Your task to perform on an android device: check data usage Image 0: 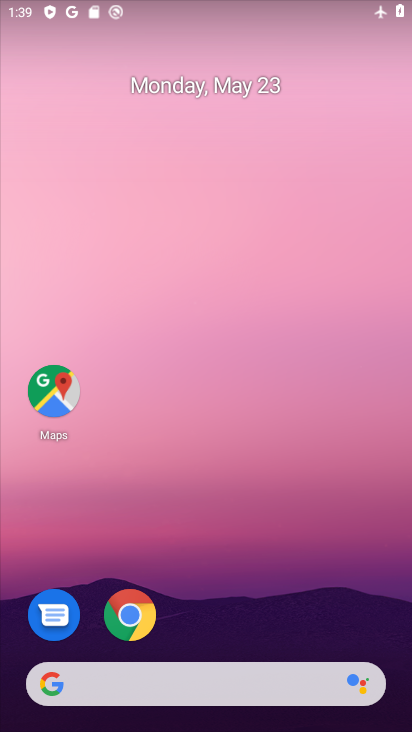
Step 0: drag from (222, 653) to (103, 148)
Your task to perform on an android device: check data usage Image 1: 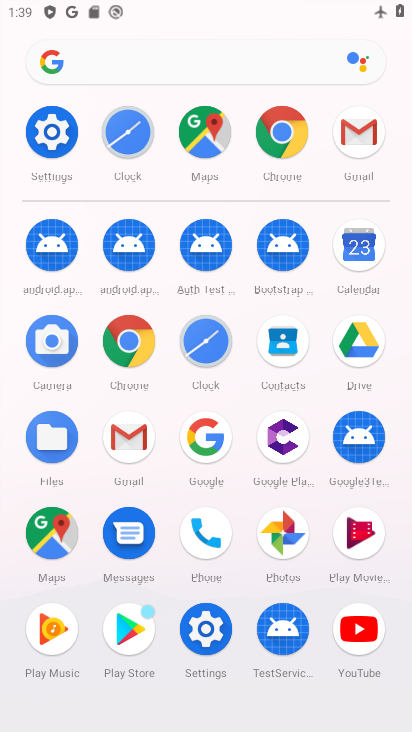
Step 1: click (64, 129)
Your task to perform on an android device: check data usage Image 2: 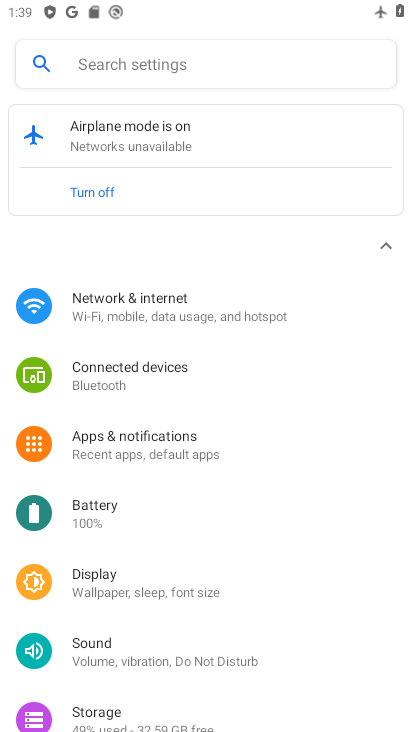
Step 2: click (104, 282)
Your task to perform on an android device: check data usage Image 3: 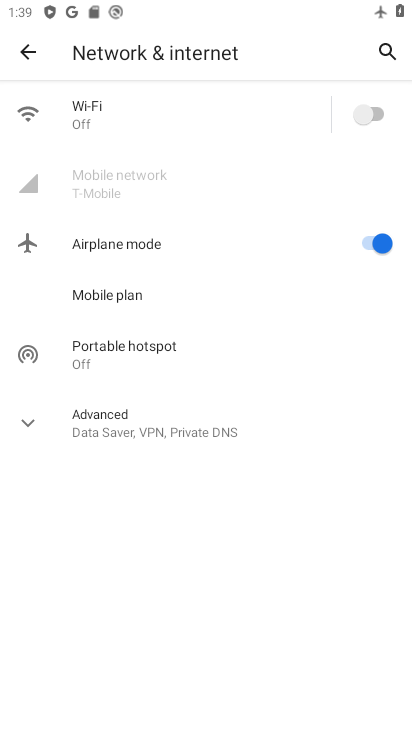
Step 3: task complete